Your task to perform on an android device: install app "WhatsApp Messenger" Image 0: 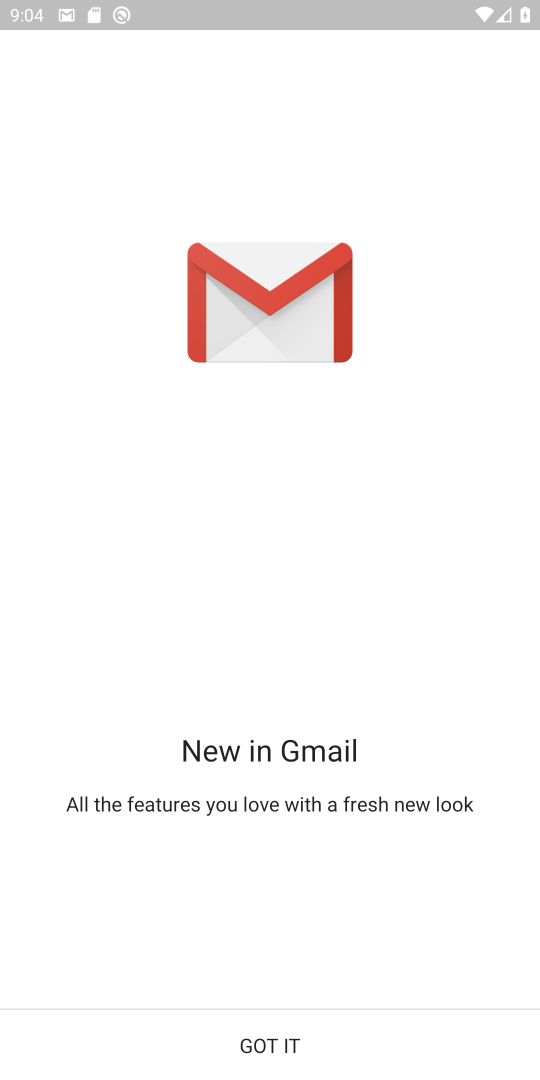
Step 0: press home button
Your task to perform on an android device: install app "WhatsApp Messenger" Image 1: 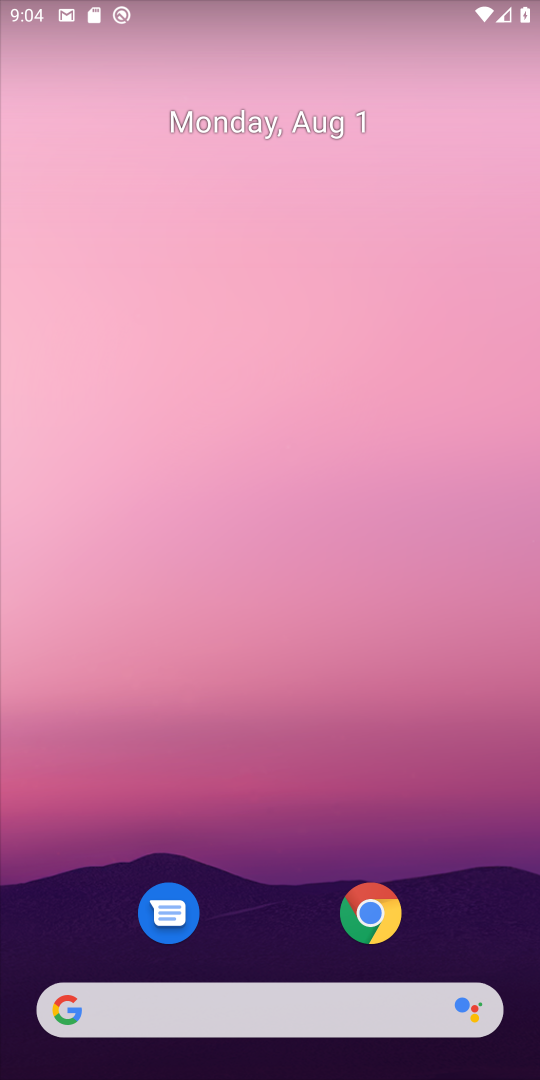
Step 1: drag from (240, 889) to (181, 201)
Your task to perform on an android device: install app "WhatsApp Messenger" Image 2: 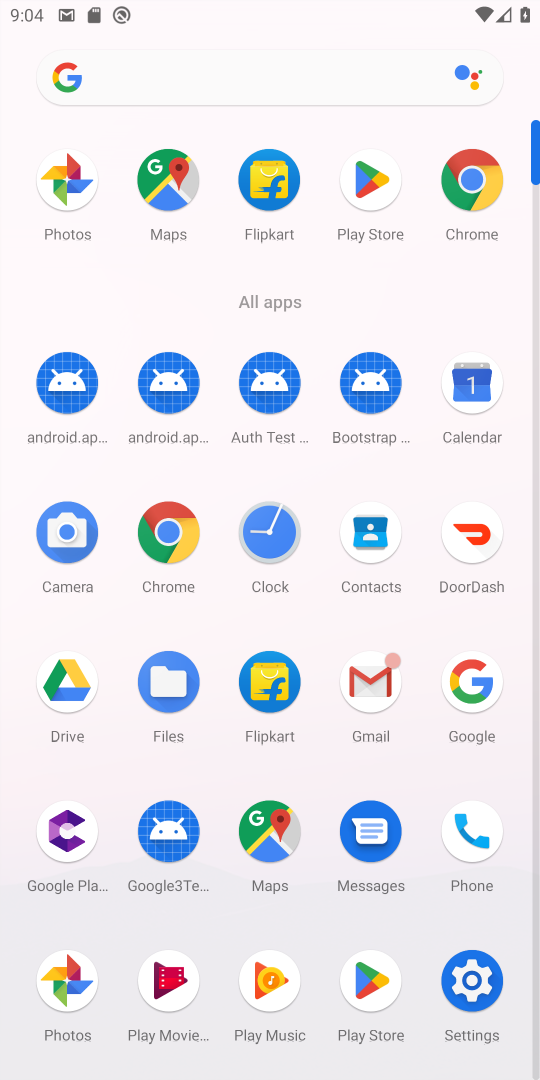
Step 2: click (370, 1009)
Your task to perform on an android device: install app "WhatsApp Messenger" Image 3: 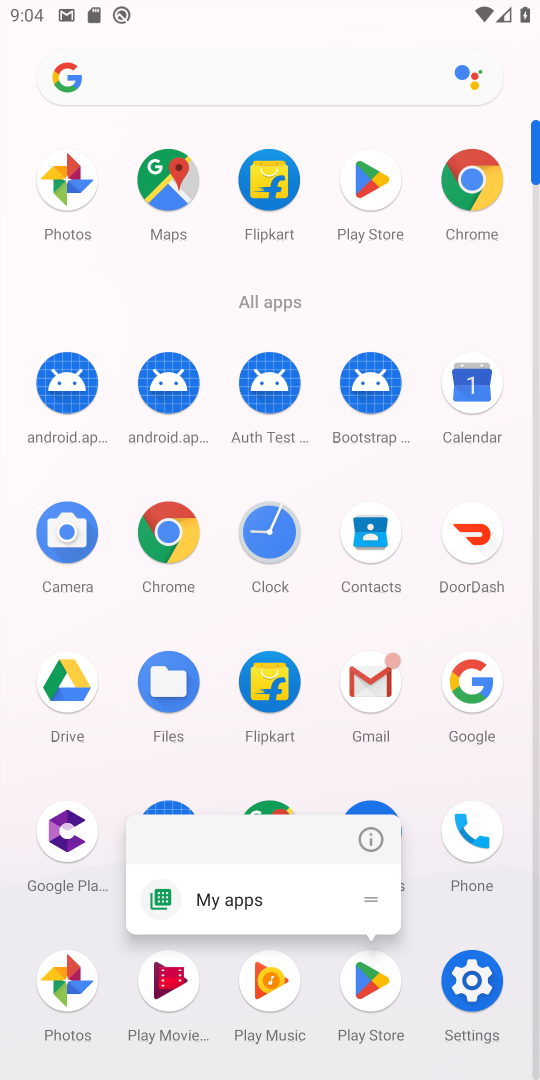
Step 3: click (370, 1009)
Your task to perform on an android device: install app "WhatsApp Messenger" Image 4: 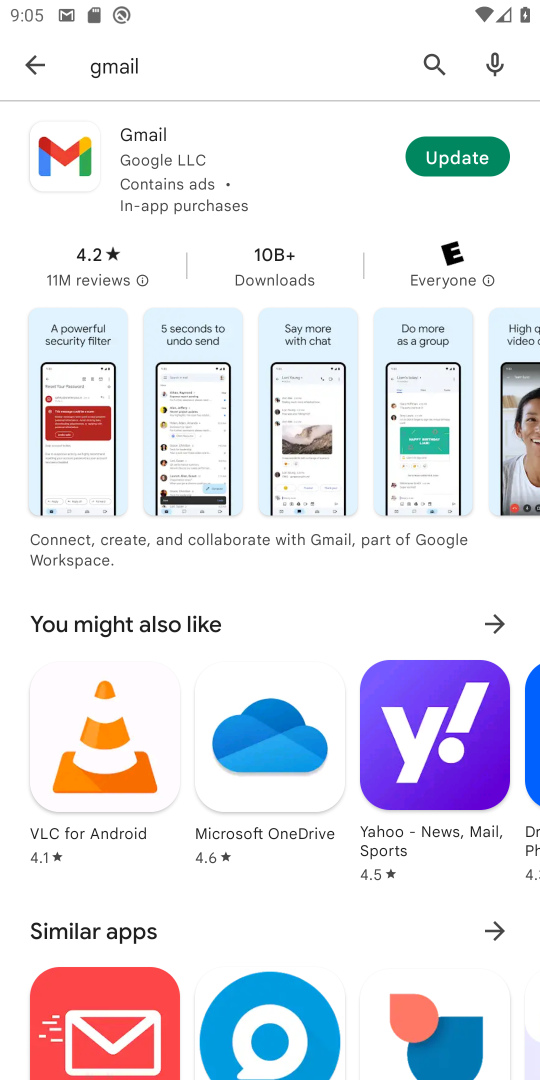
Step 4: click (429, 67)
Your task to perform on an android device: install app "WhatsApp Messenger" Image 5: 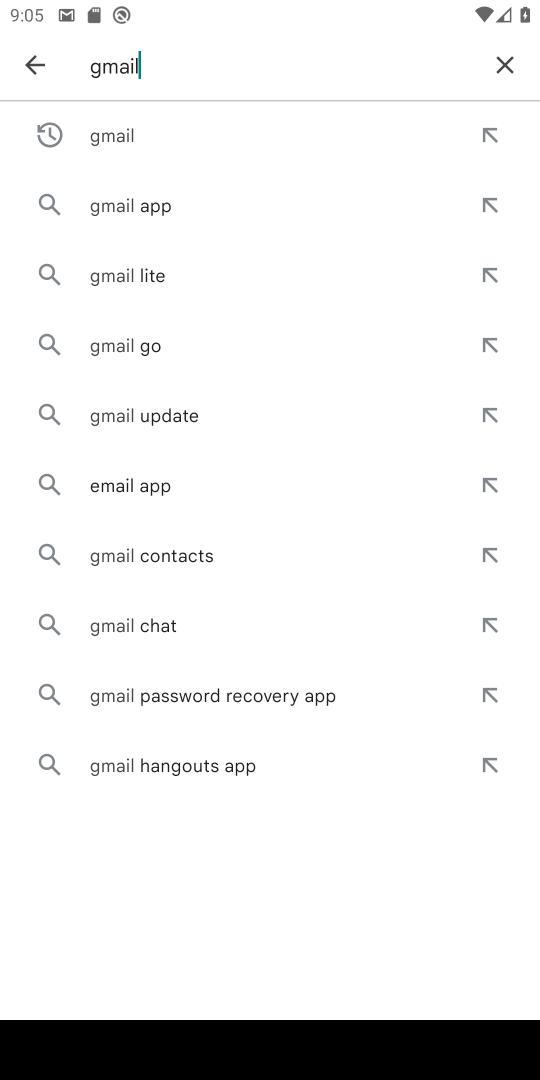
Step 5: click (508, 65)
Your task to perform on an android device: install app "WhatsApp Messenger" Image 6: 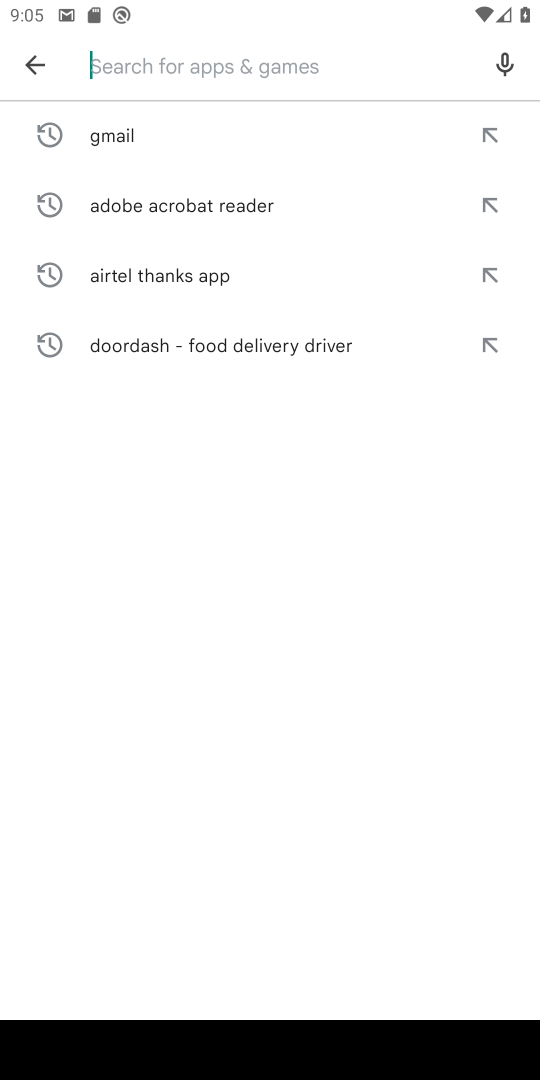
Step 6: type "whatsapp messenger"
Your task to perform on an android device: install app "WhatsApp Messenger" Image 7: 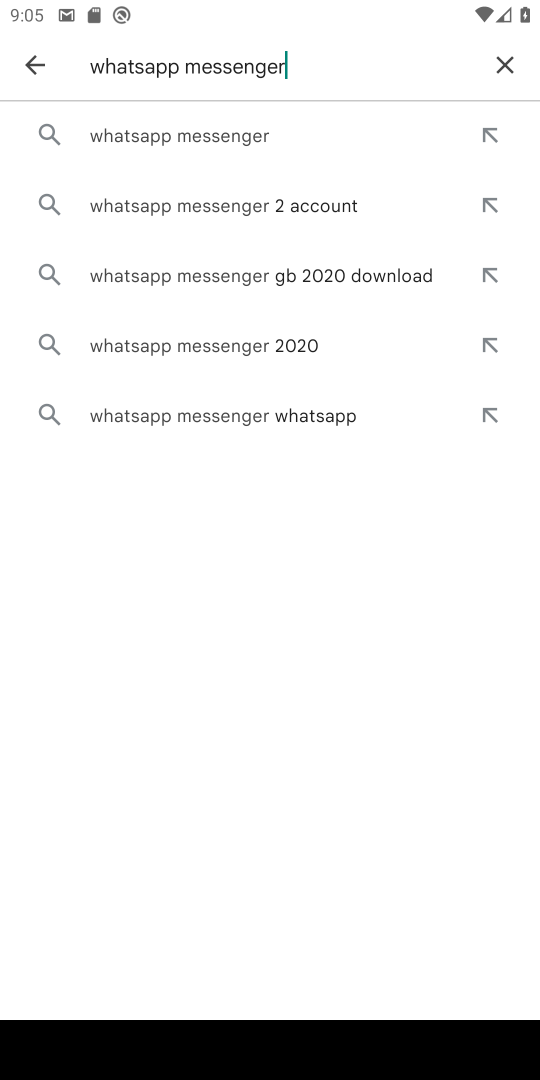
Step 7: click (219, 140)
Your task to perform on an android device: install app "WhatsApp Messenger" Image 8: 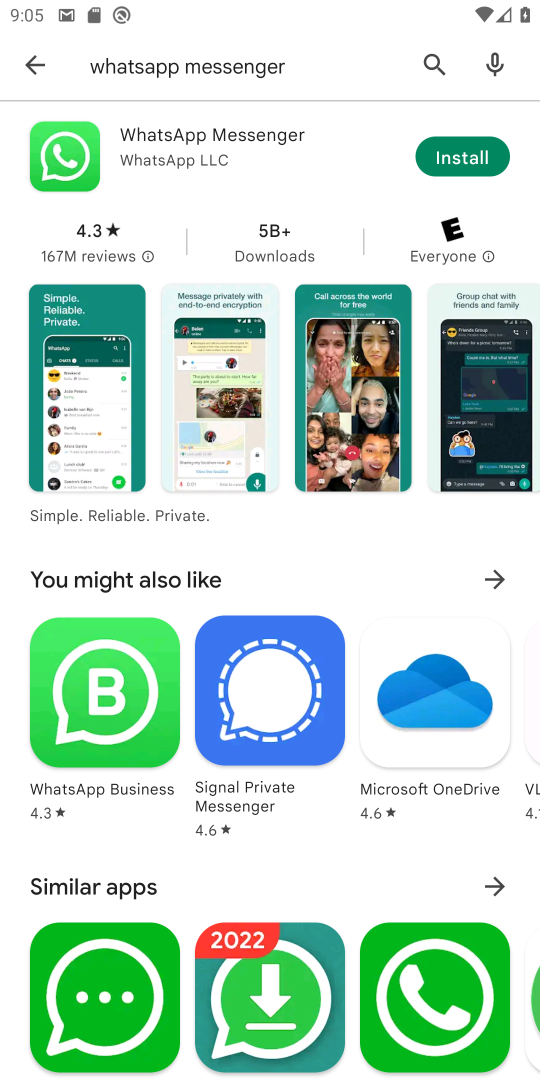
Step 8: click (452, 152)
Your task to perform on an android device: install app "WhatsApp Messenger" Image 9: 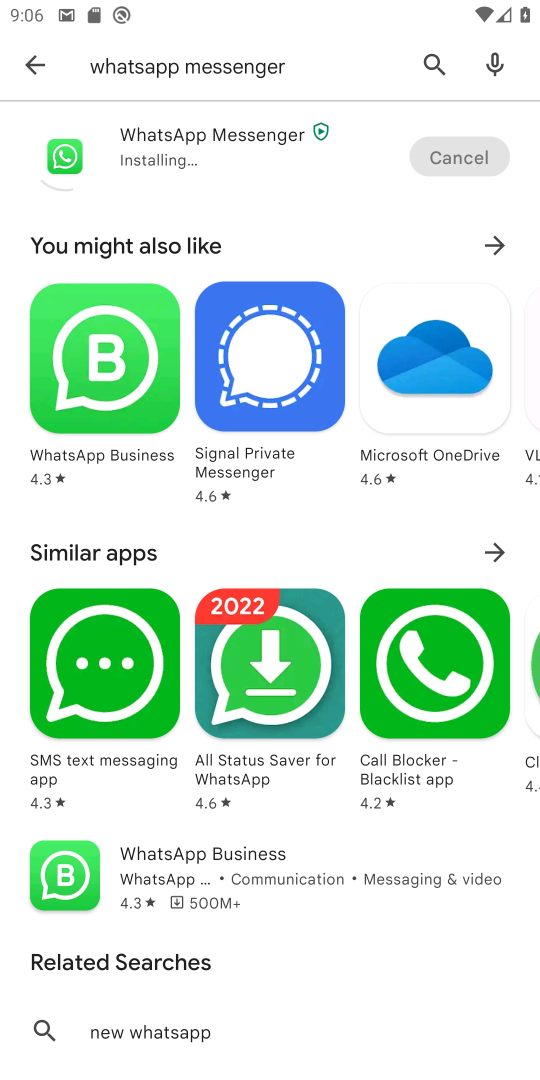
Step 9: task complete